Your task to perform on an android device: install app "VLC for Android" Image 0: 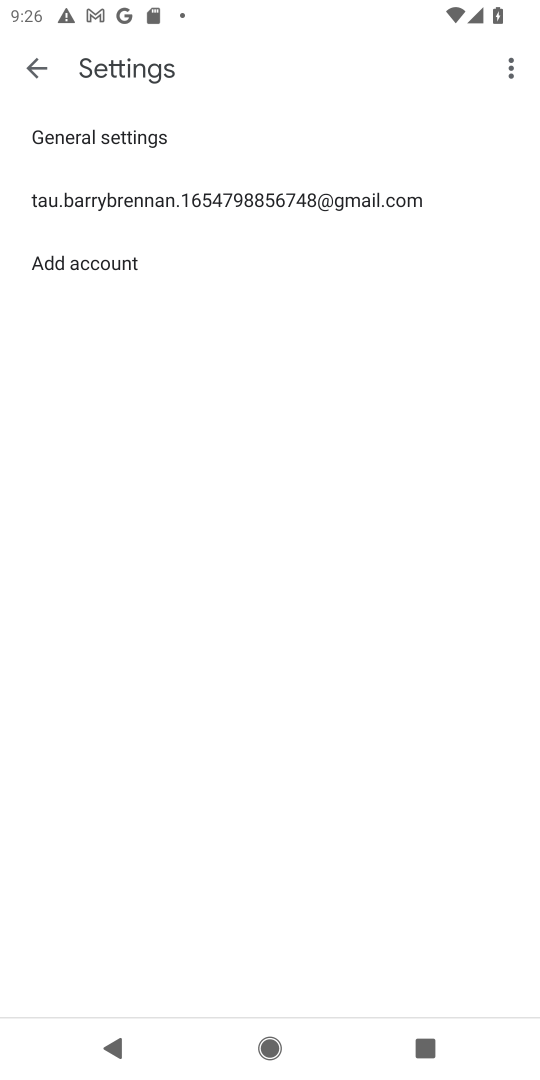
Step 0: press home button
Your task to perform on an android device: install app "VLC for Android" Image 1: 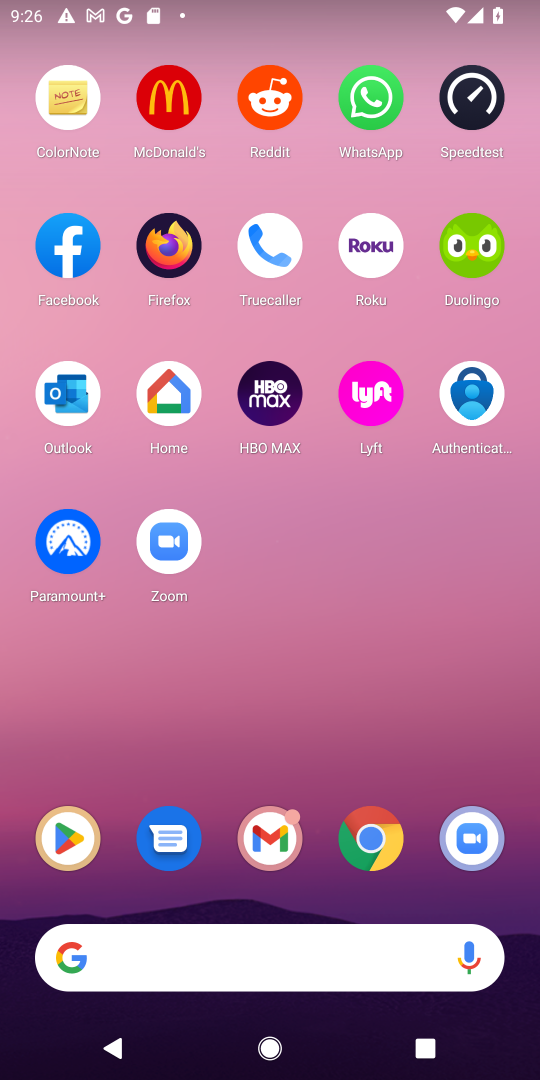
Step 1: drag from (386, 646) to (363, 37)
Your task to perform on an android device: install app "VLC for Android" Image 2: 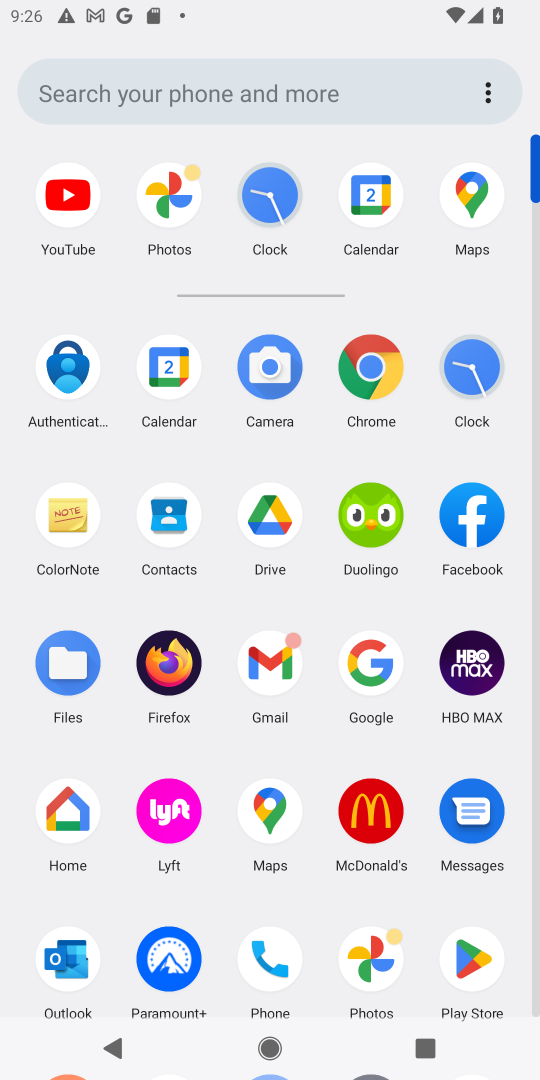
Step 2: click (477, 962)
Your task to perform on an android device: install app "VLC for Android" Image 3: 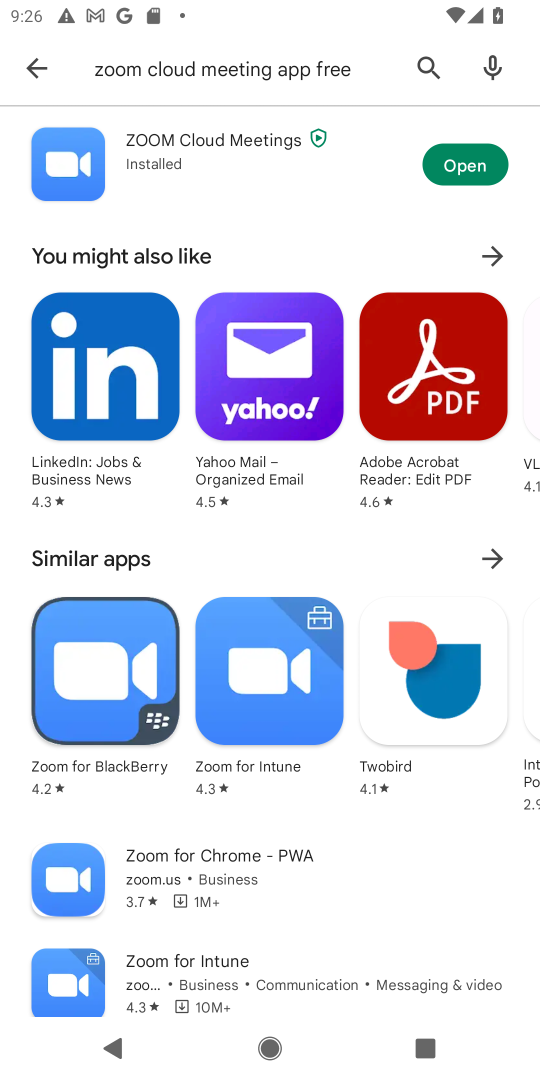
Step 3: click (424, 64)
Your task to perform on an android device: install app "VLC for Android" Image 4: 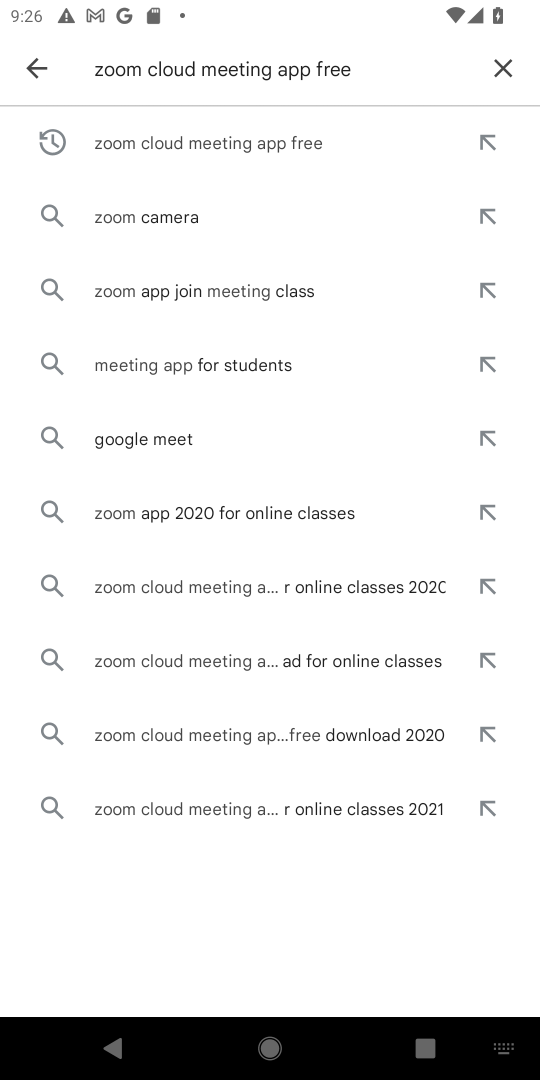
Step 4: click (507, 71)
Your task to perform on an android device: install app "VLC for Android" Image 5: 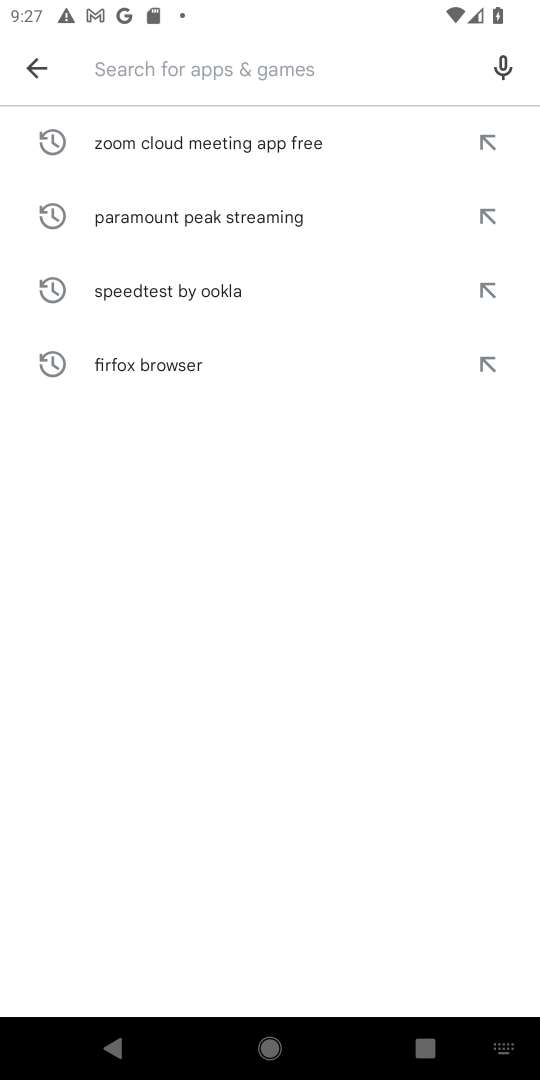
Step 5: type "vlc for android "
Your task to perform on an android device: install app "VLC for Android" Image 6: 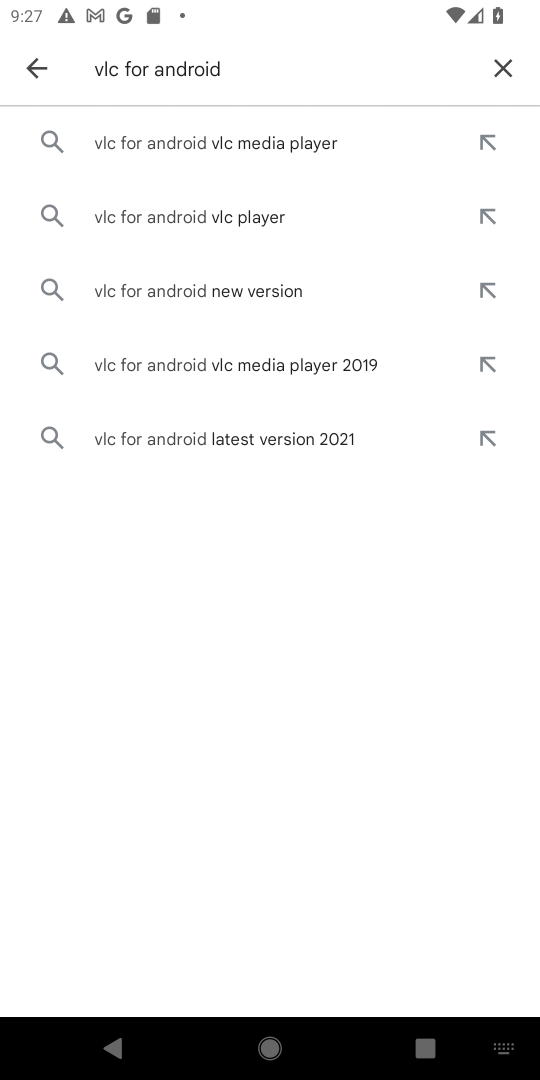
Step 6: click (318, 141)
Your task to perform on an android device: install app "VLC for Android" Image 7: 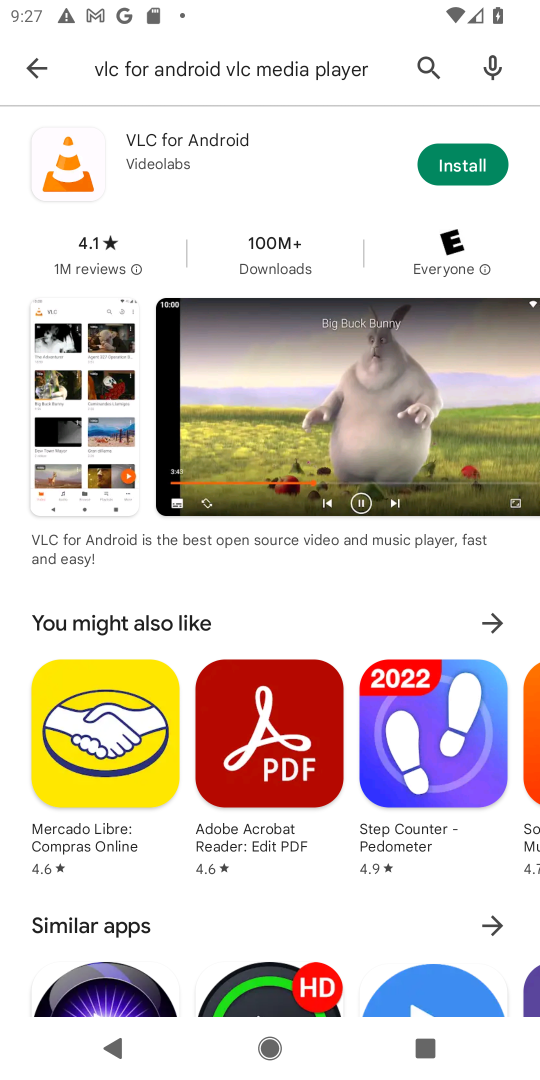
Step 7: click (475, 161)
Your task to perform on an android device: install app "VLC for Android" Image 8: 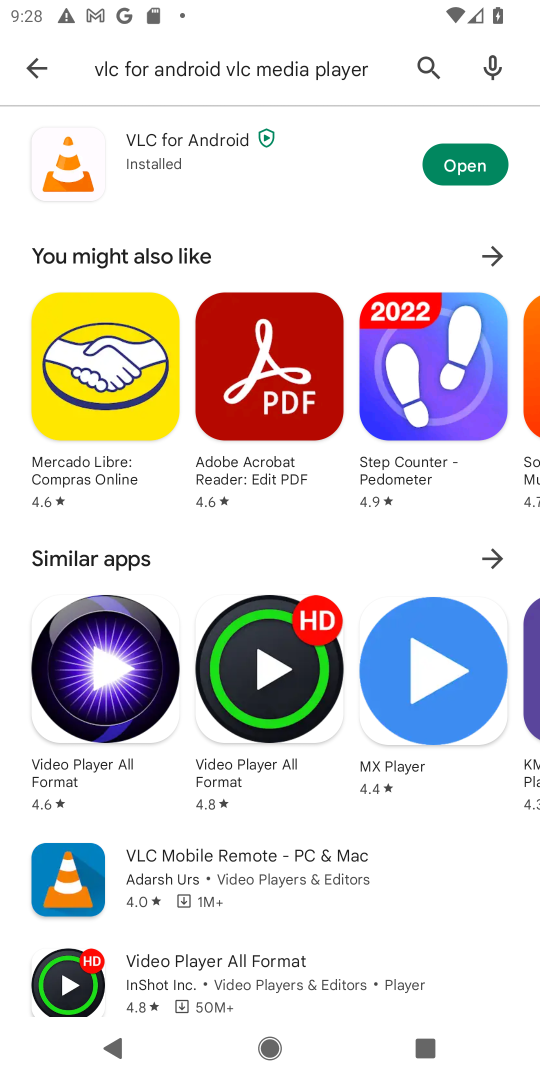
Step 8: task complete